Your task to perform on an android device: Go to battery settings Image 0: 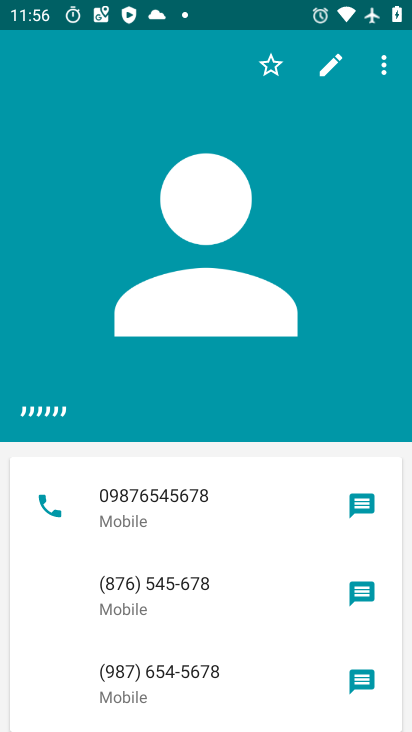
Step 0: press back button
Your task to perform on an android device: Go to battery settings Image 1: 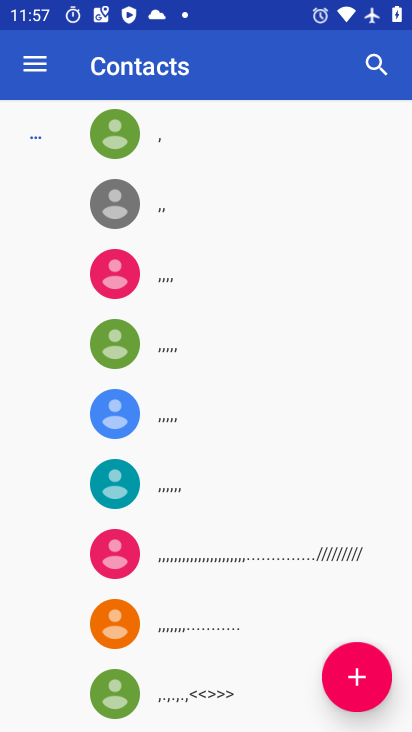
Step 1: press home button
Your task to perform on an android device: Go to battery settings Image 2: 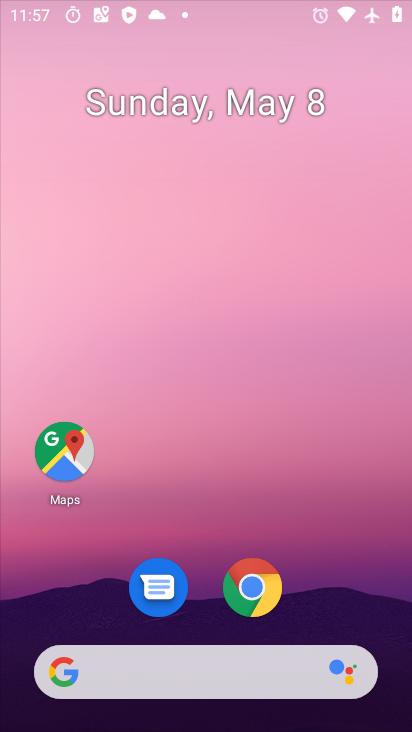
Step 2: press home button
Your task to perform on an android device: Go to battery settings Image 3: 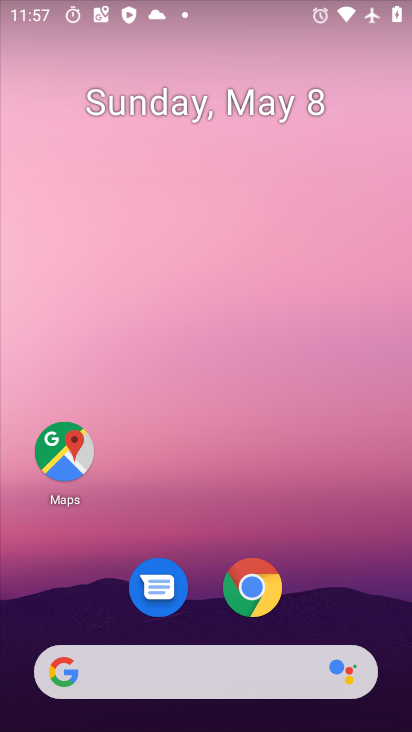
Step 3: drag from (363, 565) to (134, 84)
Your task to perform on an android device: Go to battery settings Image 4: 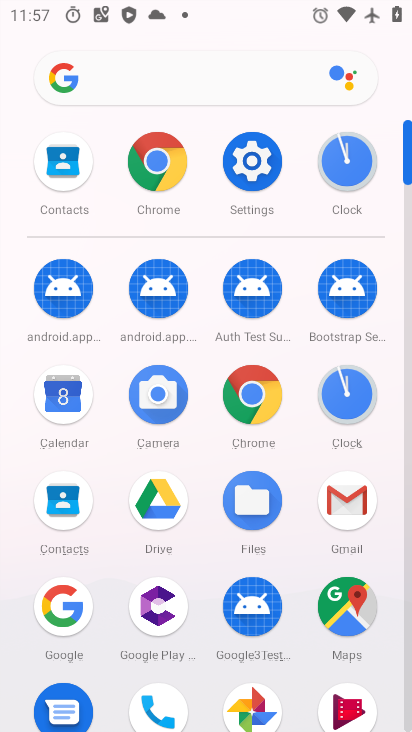
Step 4: click (250, 163)
Your task to perform on an android device: Go to battery settings Image 5: 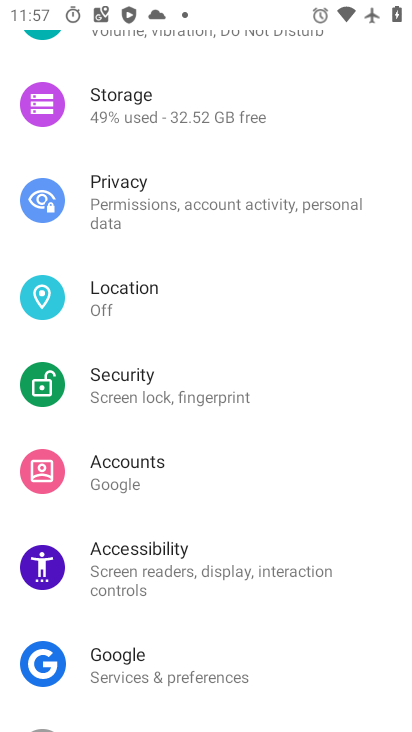
Step 5: click (164, 571)
Your task to perform on an android device: Go to battery settings Image 6: 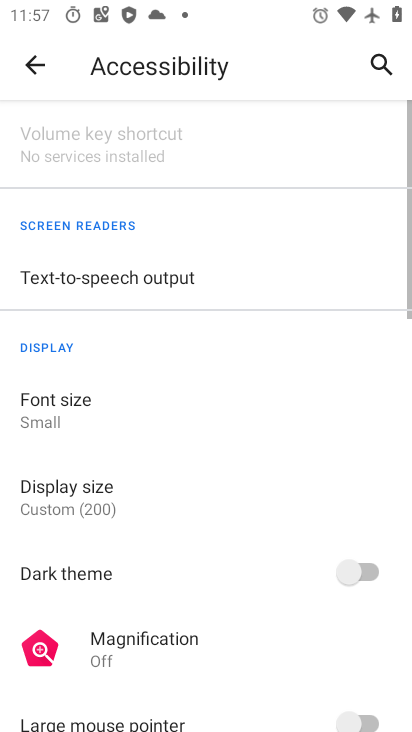
Step 6: drag from (204, 137) to (187, 426)
Your task to perform on an android device: Go to battery settings Image 7: 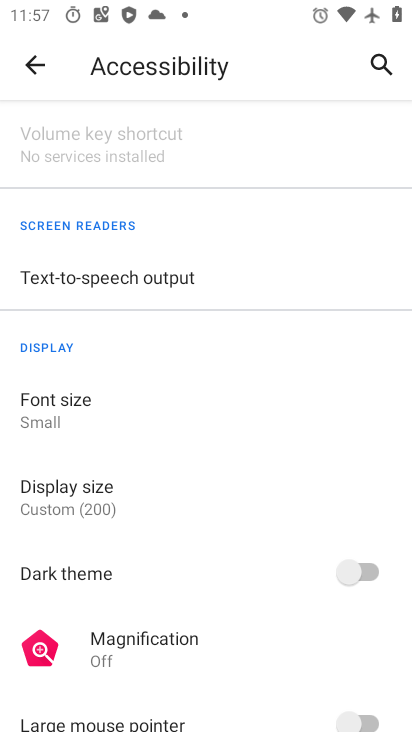
Step 7: drag from (185, 540) to (217, 237)
Your task to perform on an android device: Go to battery settings Image 8: 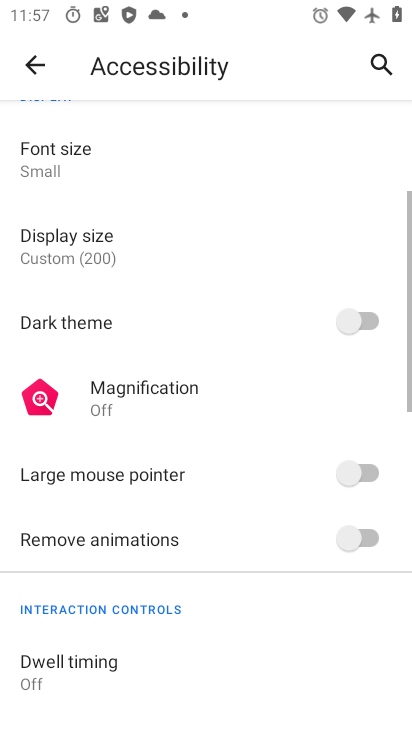
Step 8: drag from (196, 494) to (227, 158)
Your task to perform on an android device: Go to battery settings Image 9: 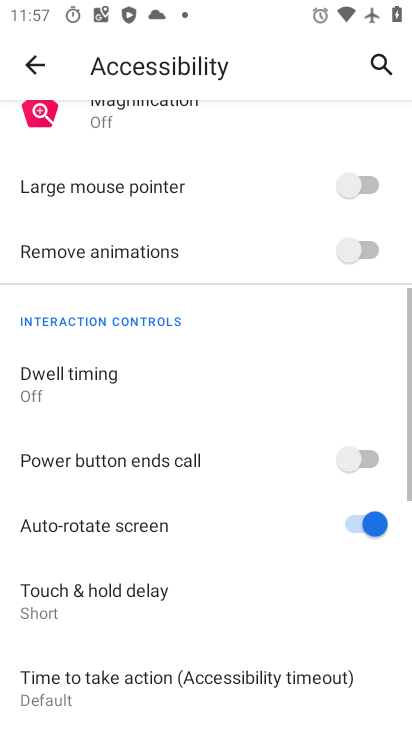
Step 9: drag from (162, 501) to (181, 170)
Your task to perform on an android device: Go to battery settings Image 10: 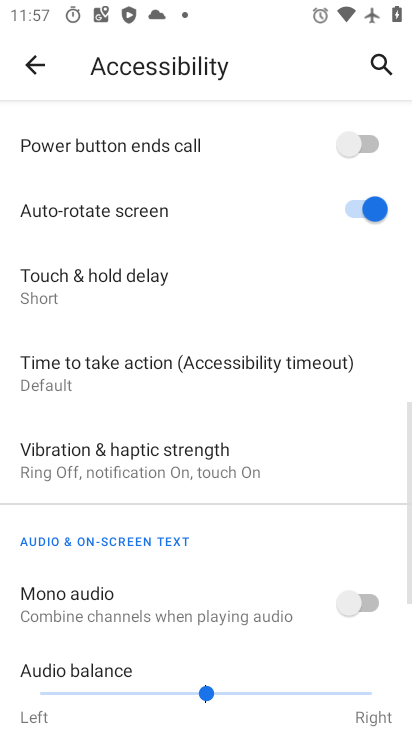
Step 10: drag from (210, 436) to (273, 110)
Your task to perform on an android device: Go to battery settings Image 11: 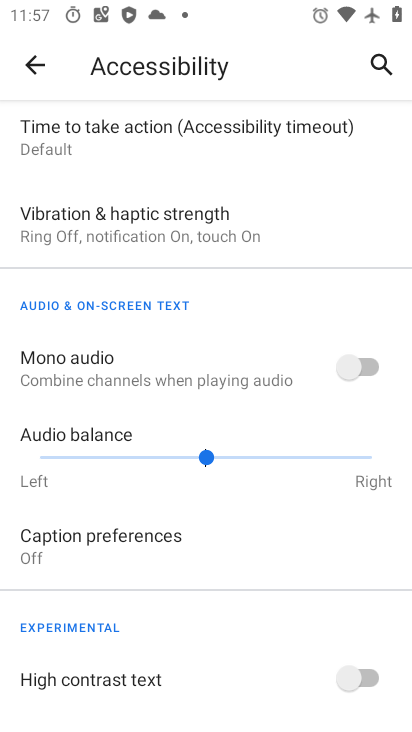
Step 11: drag from (191, 516) to (177, 107)
Your task to perform on an android device: Go to battery settings Image 12: 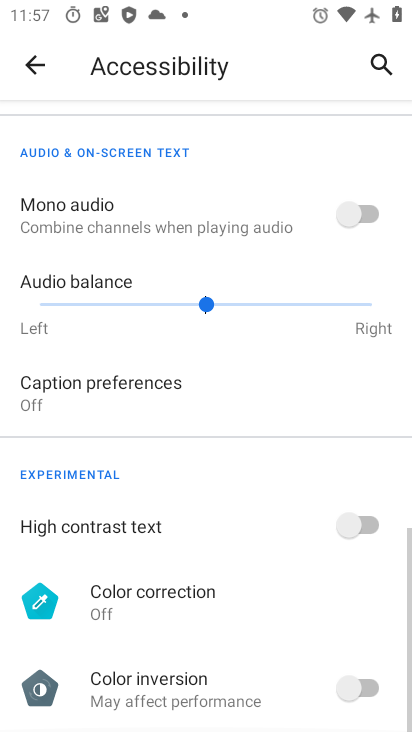
Step 12: click (32, 75)
Your task to perform on an android device: Go to battery settings Image 13: 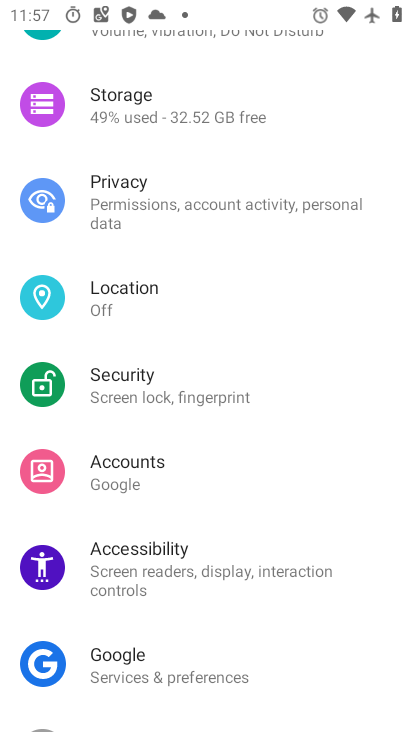
Step 13: drag from (159, 137) to (168, 595)
Your task to perform on an android device: Go to battery settings Image 14: 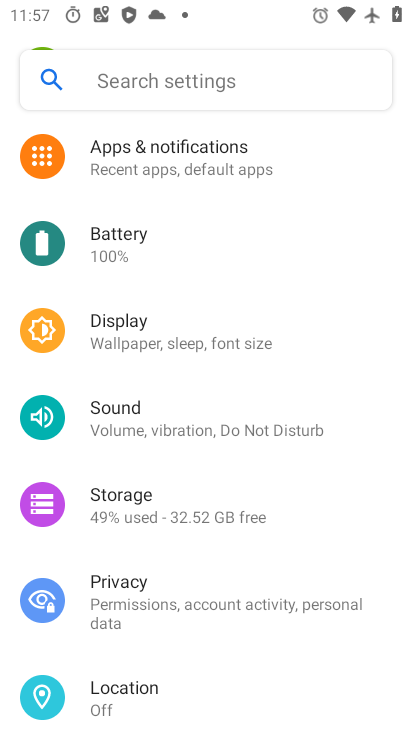
Step 14: click (119, 242)
Your task to perform on an android device: Go to battery settings Image 15: 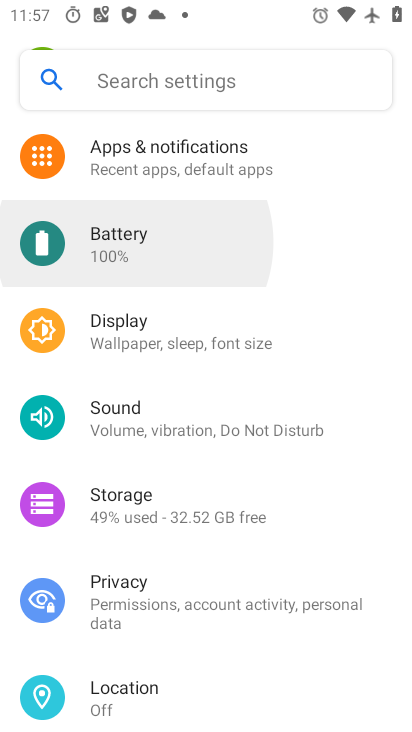
Step 15: click (109, 254)
Your task to perform on an android device: Go to battery settings Image 16: 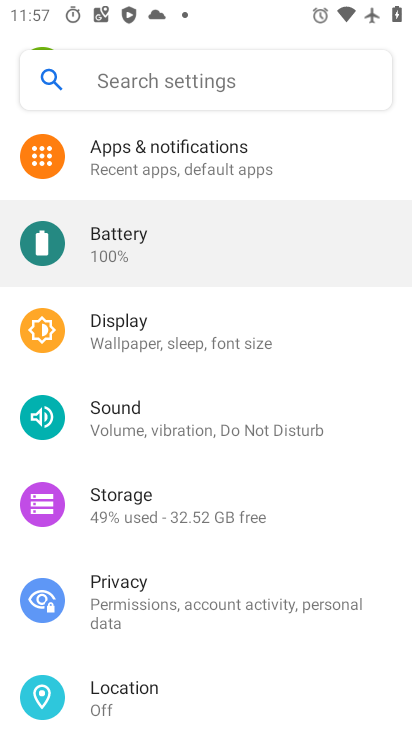
Step 16: click (110, 255)
Your task to perform on an android device: Go to battery settings Image 17: 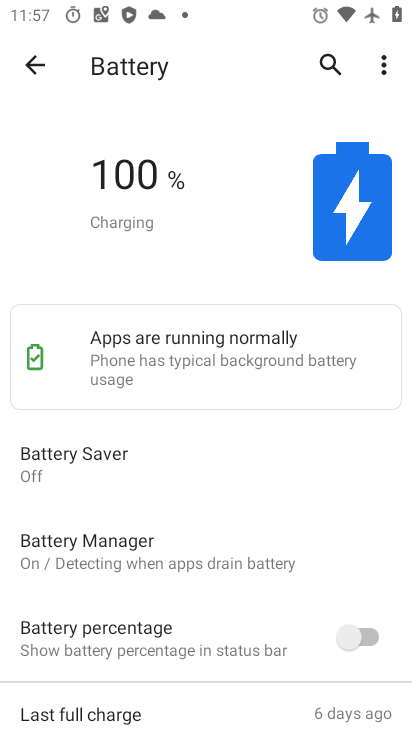
Step 17: task complete